Your task to perform on an android device: open app "Pinterest" Image 0: 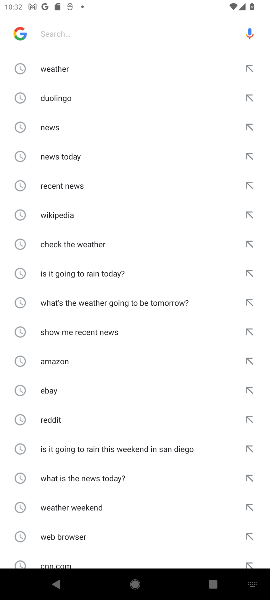
Step 0: press home button
Your task to perform on an android device: open app "Pinterest" Image 1: 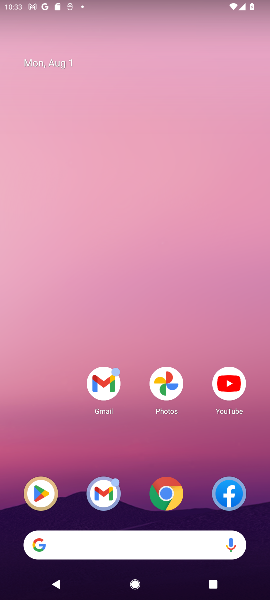
Step 1: task complete